Your task to perform on an android device: change the clock style Image 0: 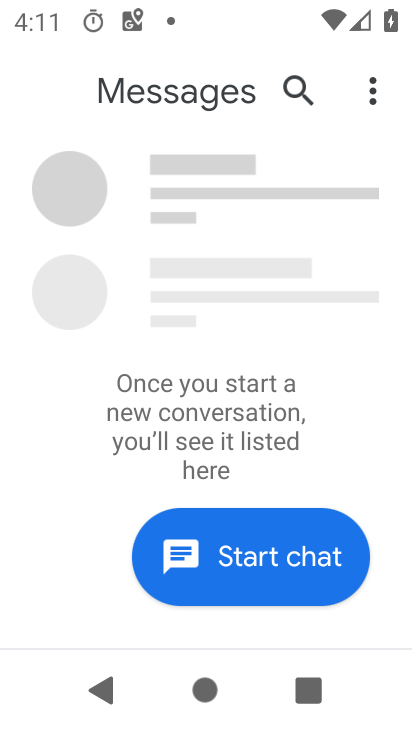
Step 0: press home button
Your task to perform on an android device: change the clock style Image 1: 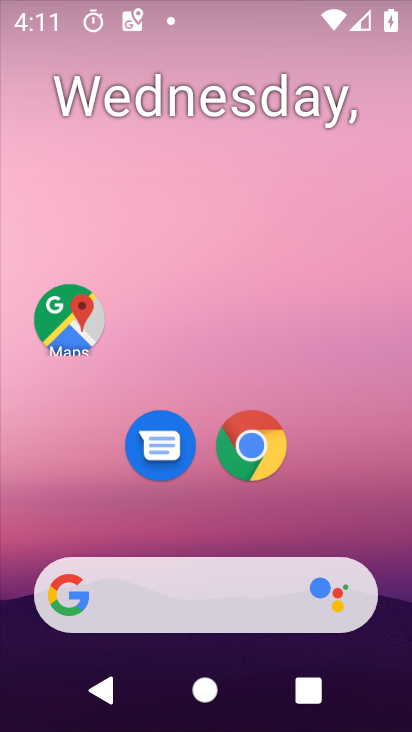
Step 1: drag from (264, 503) to (314, 45)
Your task to perform on an android device: change the clock style Image 2: 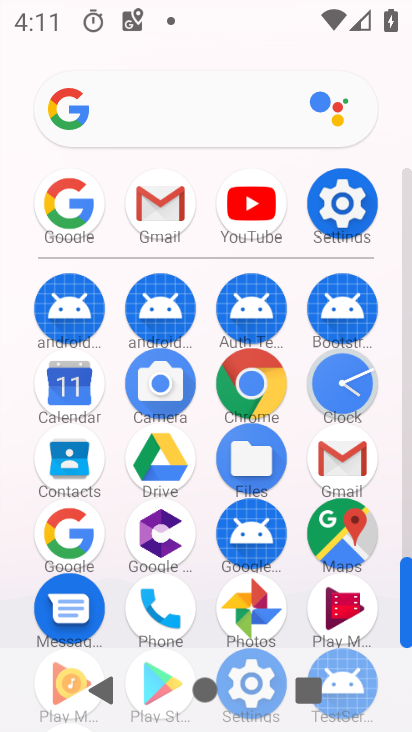
Step 2: click (340, 383)
Your task to perform on an android device: change the clock style Image 3: 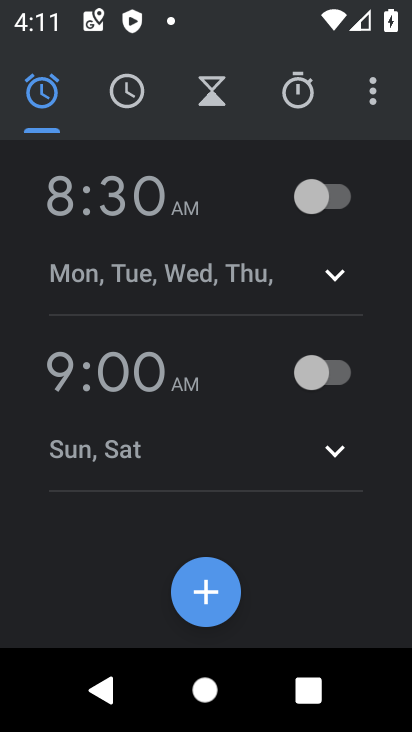
Step 3: click (368, 91)
Your task to perform on an android device: change the clock style Image 4: 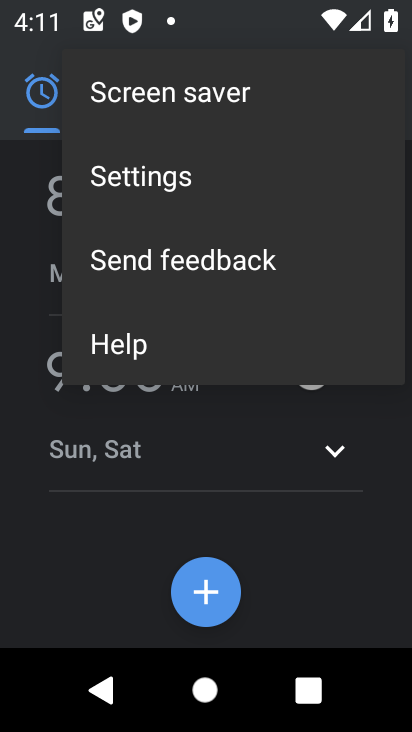
Step 4: click (176, 185)
Your task to perform on an android device: change the clock style Image 5: 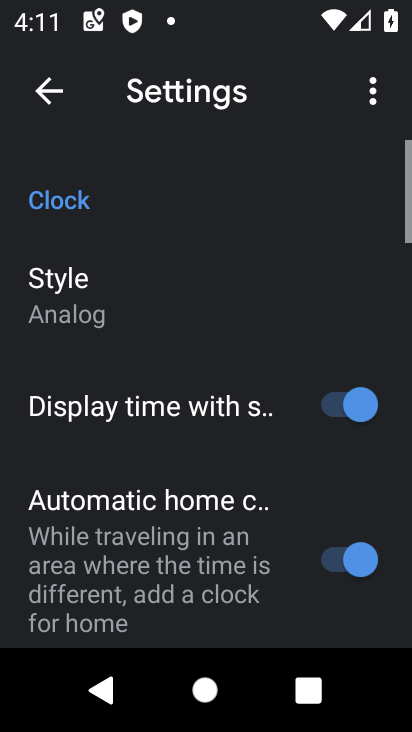
Step 5: click (87, 309)
Your task to perform on an android device: change the clock style Image 6: 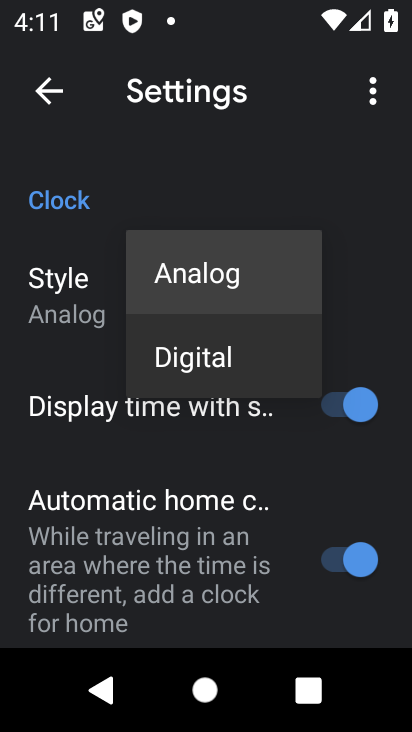
Step 6: click (178, 343)
Your task to perform on an android device: change the clock style Image 7: 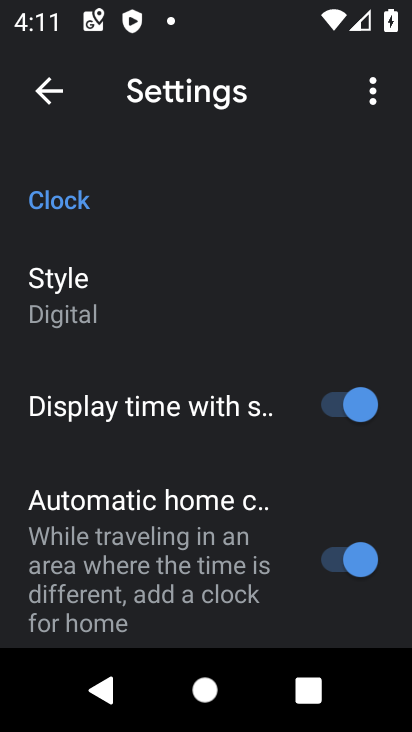
Step 7: task complete